Your task to perform on an android device: toggle improve location accuracy Image 0: 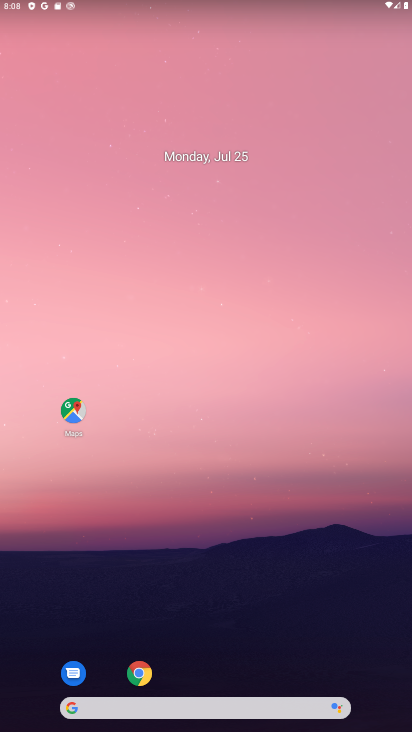
Step 0: drag from (223, 683) to (209, 489)
Your task to perform on an android device: toggle improve location accuracy Image 1: 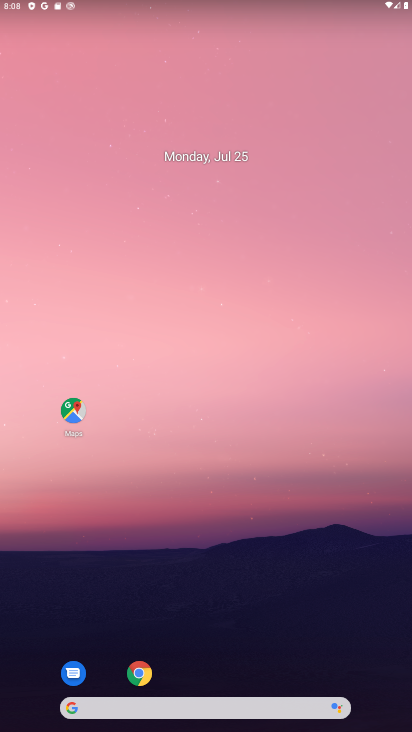
Step 1: drag from (200, 679) to (147, 4)
Your task to perform on an android device: toggle improve location accuracy Image 2: 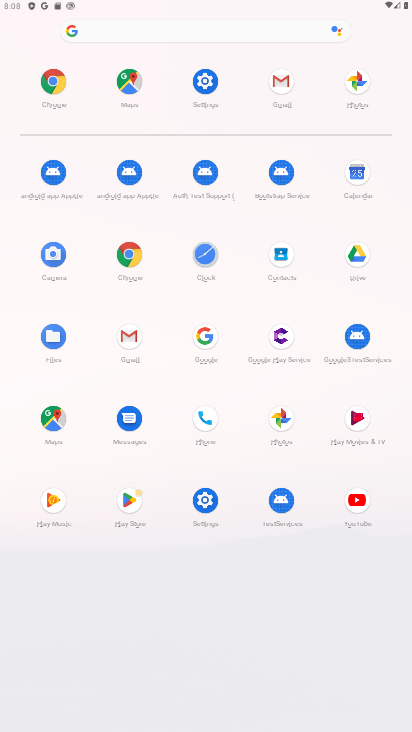
Step 2: click (194, 78)
Your task to perform on an android device: toggle improve location accuracy Image 3: 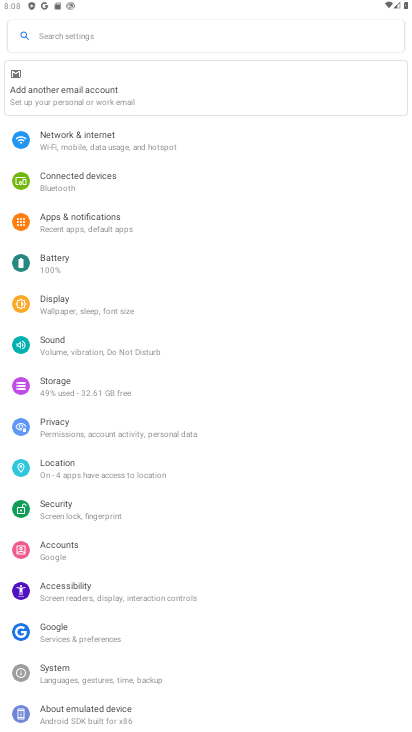
Step 3: click (112, 473)
Your task to perform on an android device: toggle improve location accuracy Image 4: 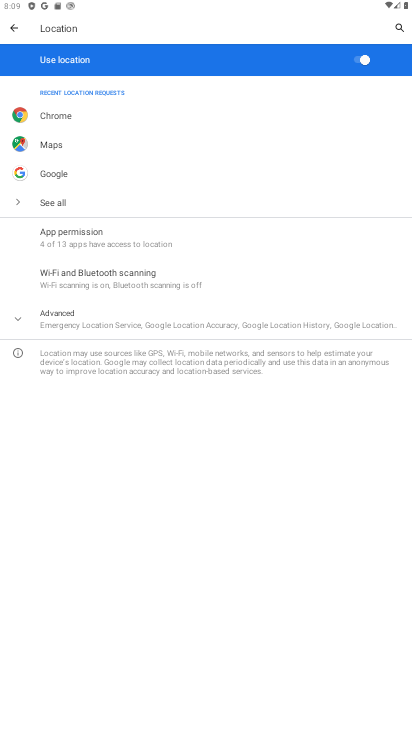
Step 4: click (141, 329)
Your task to perform on an android device: toggle improve location accuracy Image 5: 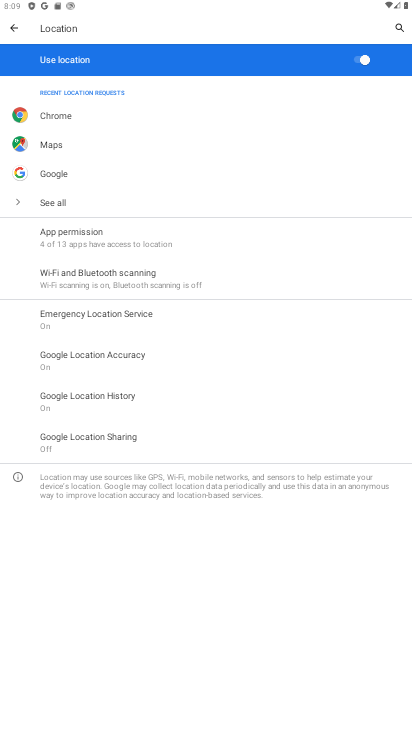
Step 5: click (141, 364)
Your task to perform on an android device: toggle improve location accuracy Image 6: 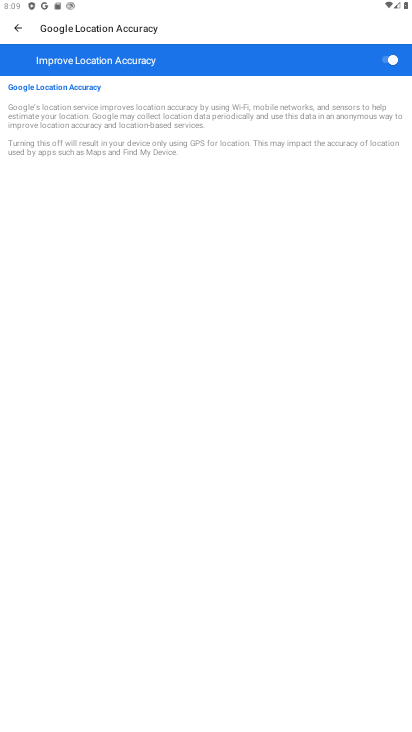
Step 6: task complete